Your task to perform on an android device: Go to Amazon Image 0: 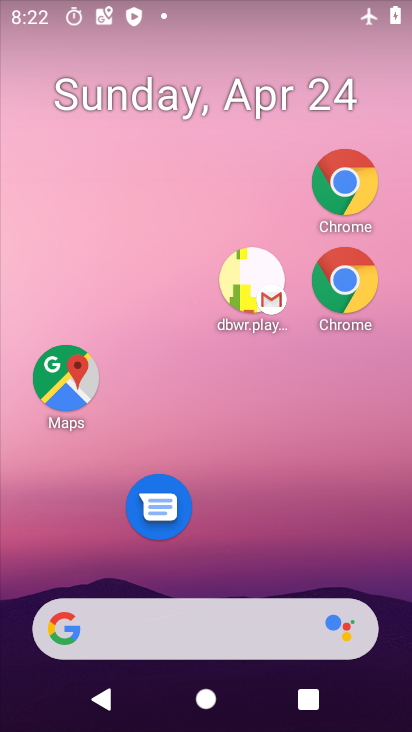
Step 0: drag from (254, 473) to (225, 222)
Your task to perform on an android device: Go to Amazon Image 1: 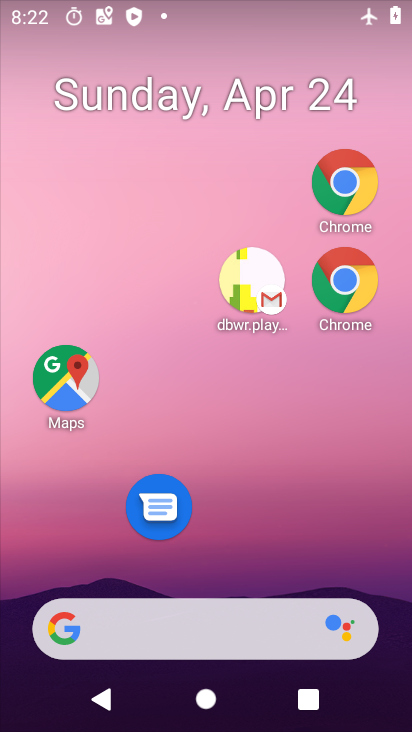
Step 1: drag from (230, 687) to (176, 221)
Your task to perform on an android device: Go to Amazon Image 2: 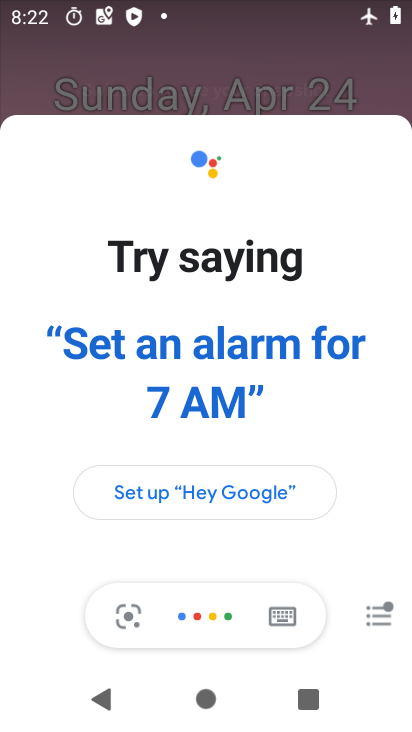
Step 2: drag from (164, 258) to (149, 198)
Your task to perform on an android device: Go to Amazon Image 3: 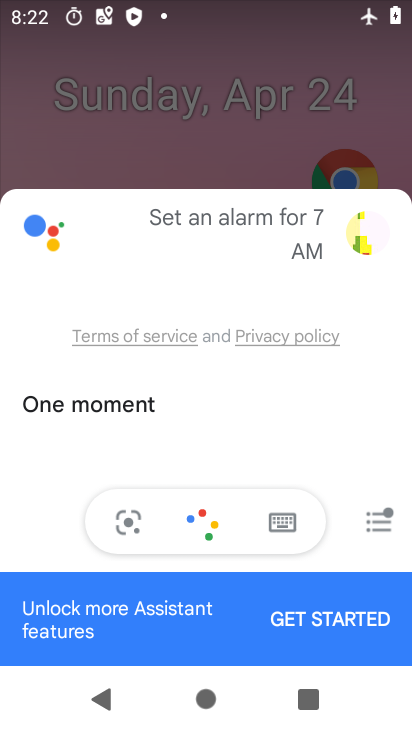
Step 3: press home button
Your task to perform on an android device: Go to Amazon Image 4: 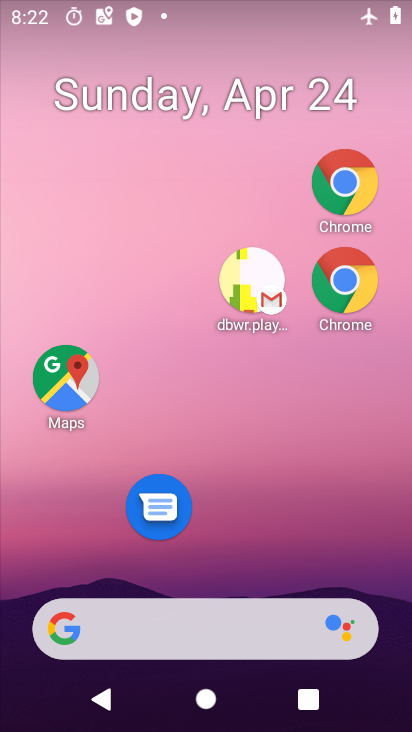
Step 4: drag from (210, 701) to (105, 7)
Your task to perform on an android device: Go to Amazon Image 5: 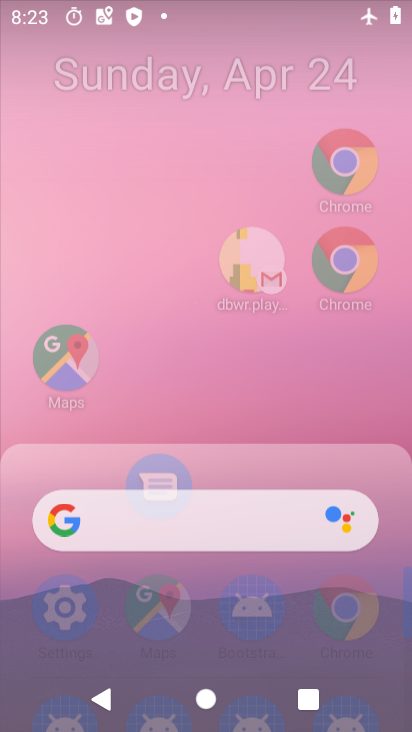
Step 5: drag from (226, 314) to (152, 2)
Your task to perform on an android device: Go to Amazon Image 6: 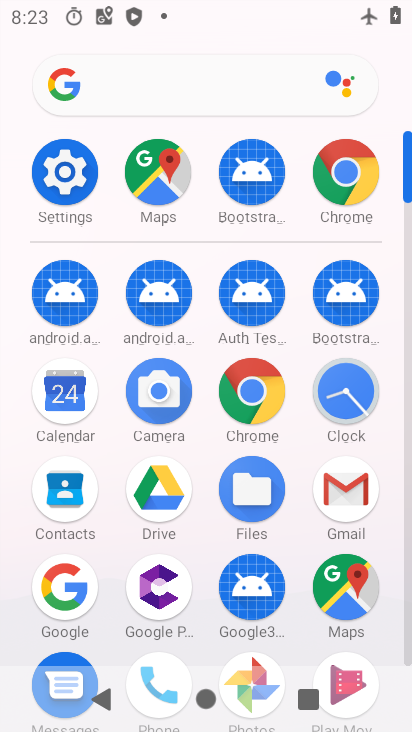
Step 6: drag from (309, 494) to (217, 14)
Your task to perform on an android device: Go to Amazon Image 7: 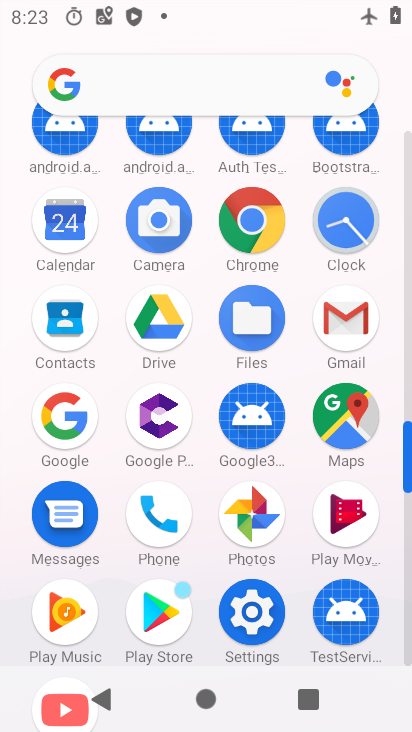
Step 7: click (243, 221)
Your task to perform on an android device: Go to Amazon Image 8: 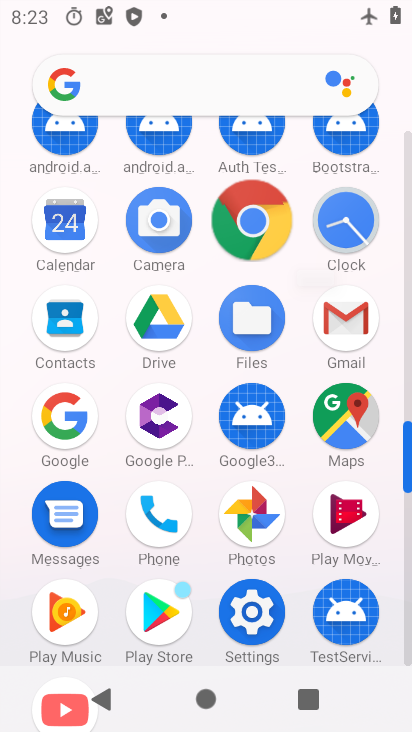
Step 8: click (252, 259)
Your task to perform on an android device: Go to Amazon Image 9: 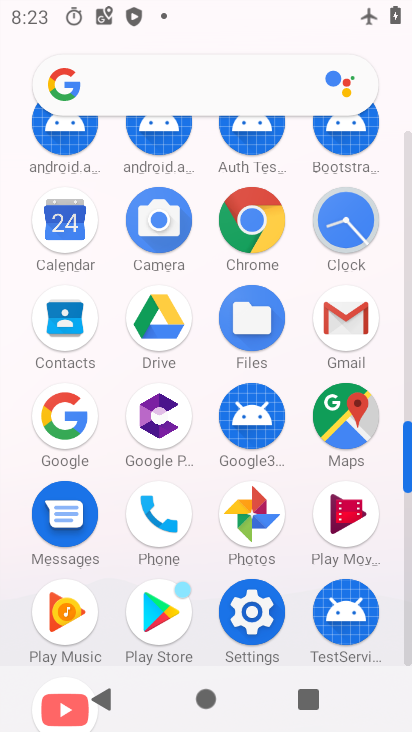
Step 9: click (255, 223)
Your task to perform on an android device: Go to Amazon Image 10: 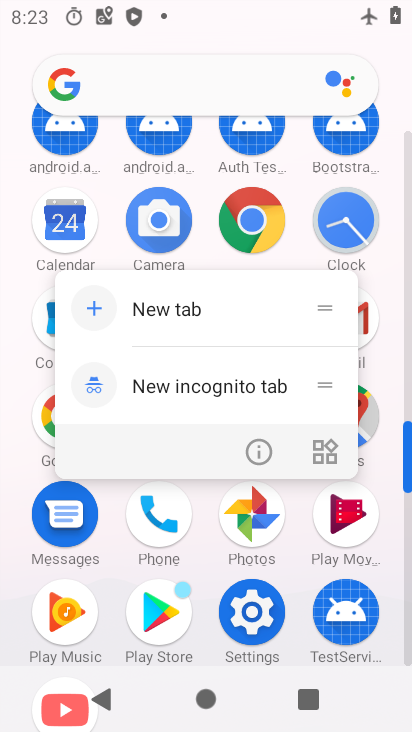
Step 10: click (255, 223)
Your task to perform on an android device: Go to Amazon Image 11: 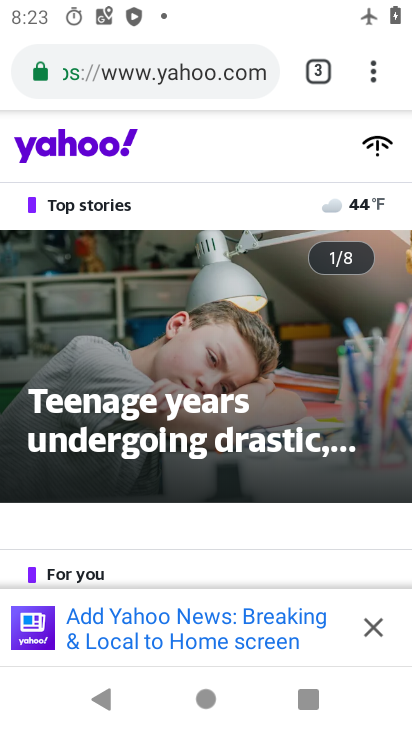
Step 11: drag from (372, 74) to (132, 147)
Your task to perform on an android device: Go to Amazon Image 12: 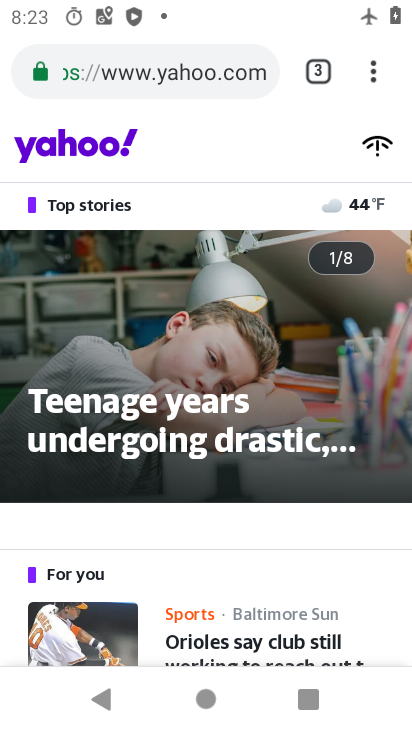
Step 12: click (135, 167)
Your task to perform on an android device: Go to Amazon Image 13: 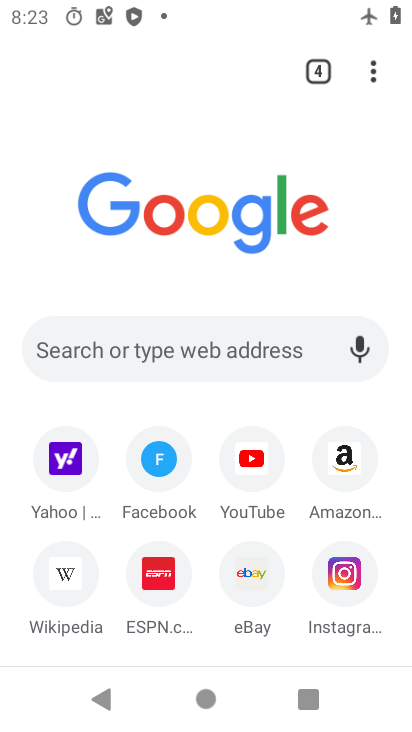
Step 13: click (351, 454)
Your task to perform on an android device: Go to Amazon Image 14: 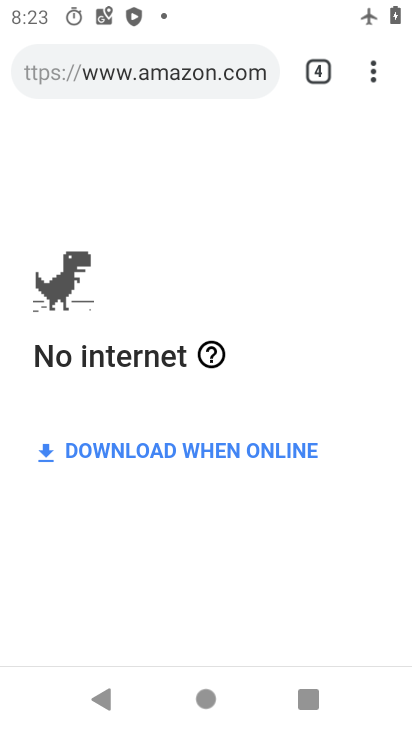
Step 14: task complete